Your task to perform on an android device: turn on priority inbox in the gmail app Image 0: 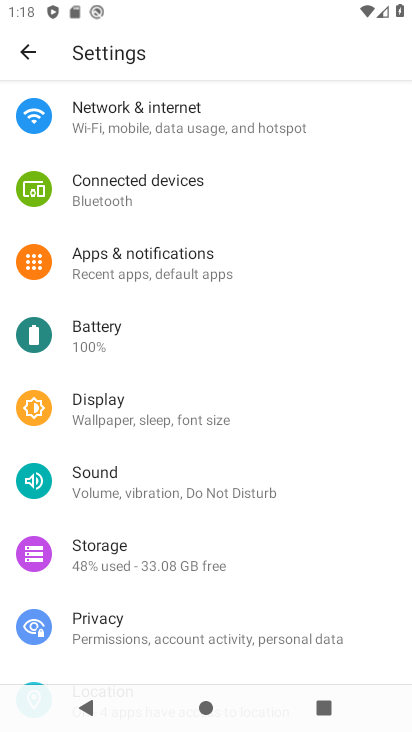
Step 0: press home button
Your task to perform on an android device: turn on priority inbox in the gmail app Image 1: 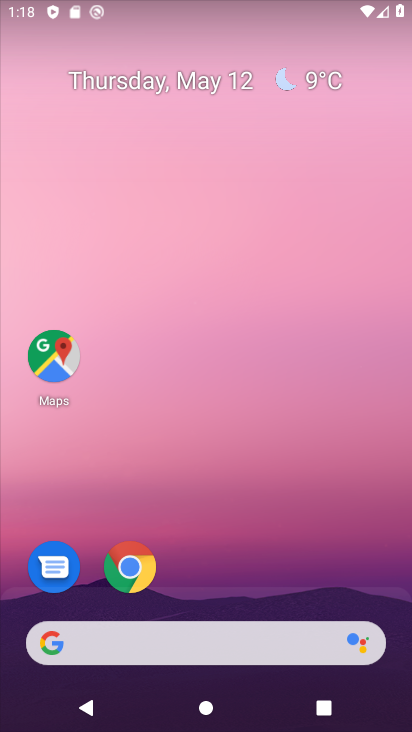
Step 1: drag from (273, 270) to (278, 184)
Your task to perform on an android device: turn on priority inbox in the gmail app Image 2: 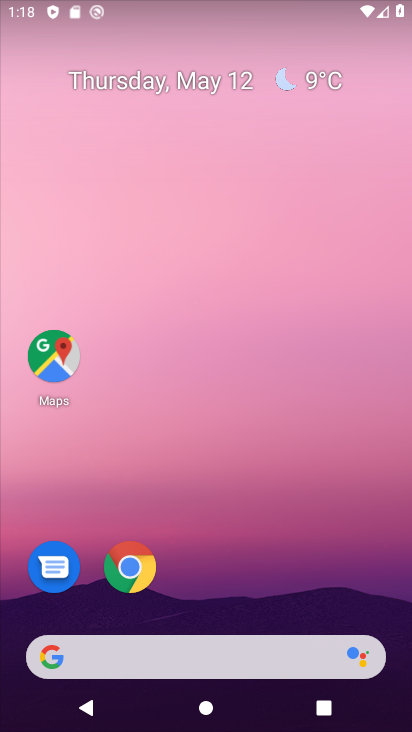
Step 2: drag from (241, 535) to (257, 61)
Your task to perform on an android device: turn on priority inbox in the gmail app Image 3: 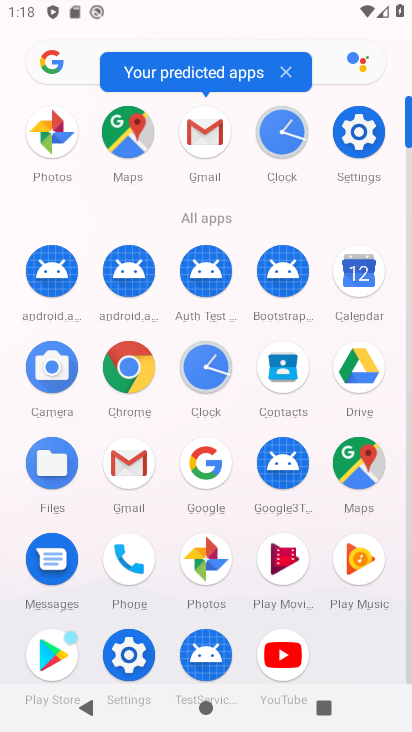
Step 3: click (126, 463)
Your task to perform on an android device: turn on priority inbox in the gmail app Image 4: 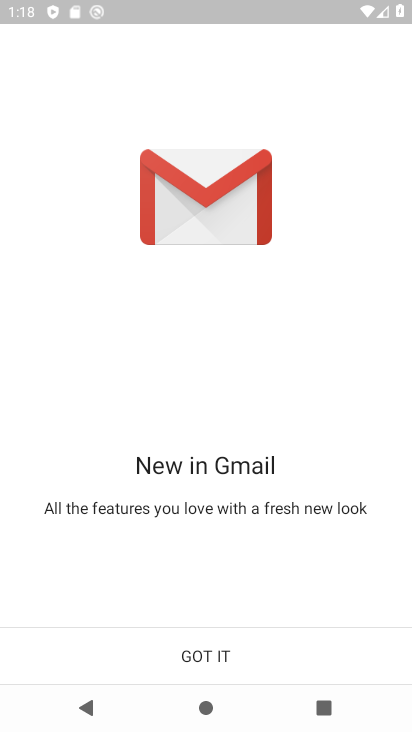
Step 4: click (206, 656)
Your task to perform on an android device: turn on priority inbox in the gmail app Image 5: 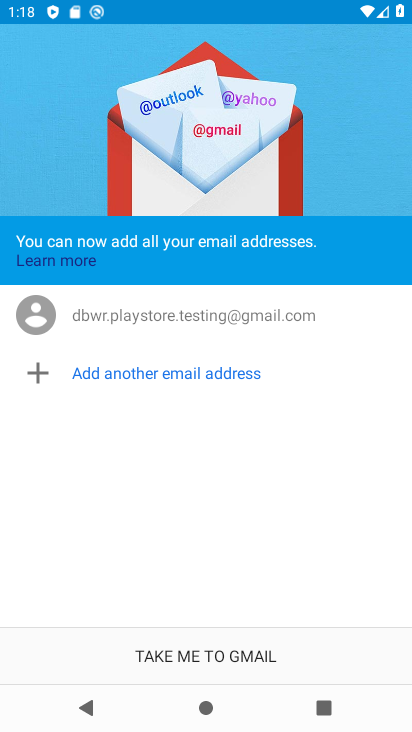
Step 5: click (206, 656)
Your task to perform on an android device: turn on priority inbox in the gmail app Image 6: 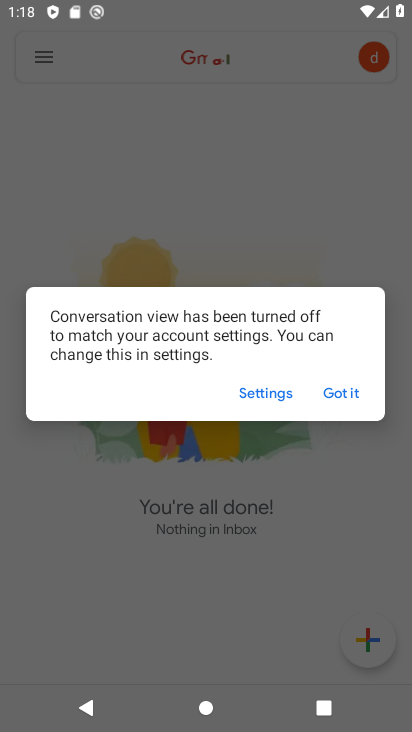
Step 6: click (338, 386)
Your task to perform on an android device: turn on priority inbox in the gmail app Image 7: 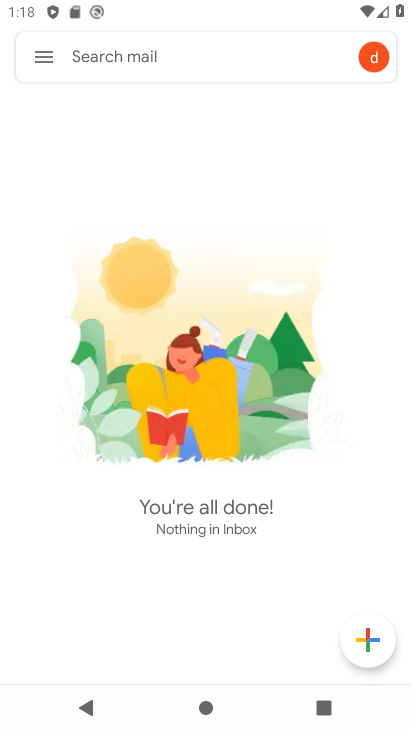
Step 7: click (38, 55)
Your task to perform on an android device: turn on priority inbox in the gmail app Image 8: 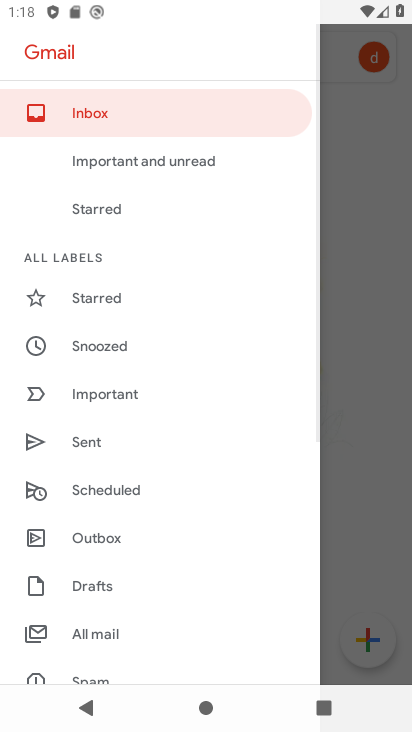
Step 8: drag from (115, 633) to (165, 278)
Your task to perform on an android device: turn on priority inbox in the gmail app Image 9: 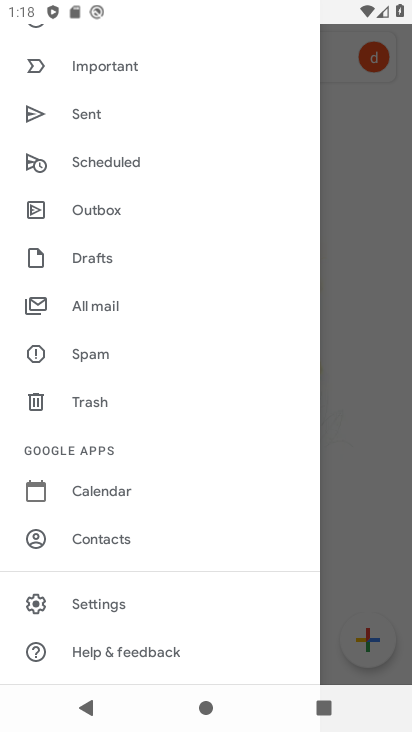
Step 9: click (106, 606)
Your task to perform on an android device: turn on priority inbox in the gmail app Image 10: 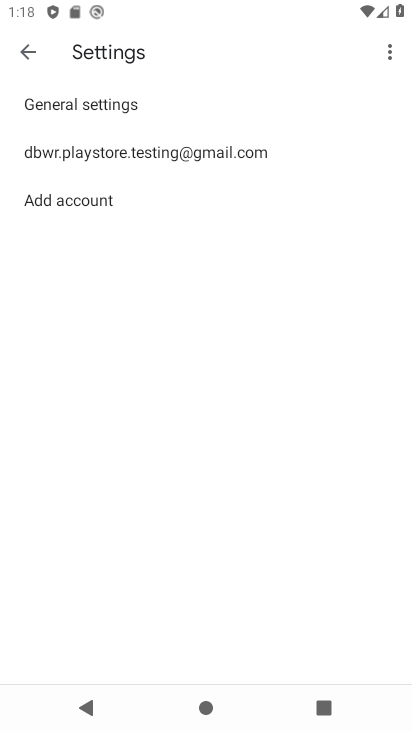
Step 10: click (144, 153)
Your task to perform on an android device: turn on priority inbox in the gmail app Image 11: 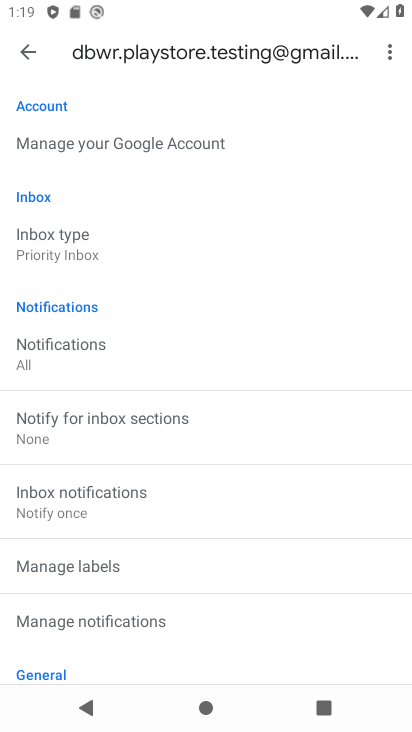
Step 11: task complete